Your task to perform on an android device: Open notification settings Image 0: 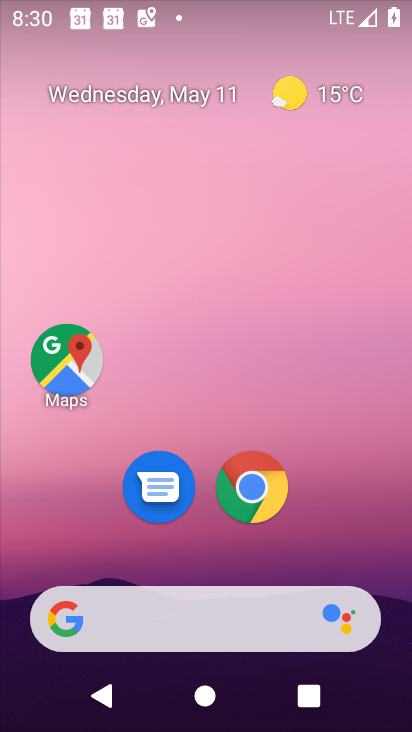
Step 0: drag from (339, 643) to (230, 153)
Your task to perform on an android device: Open notification settings Image 1: 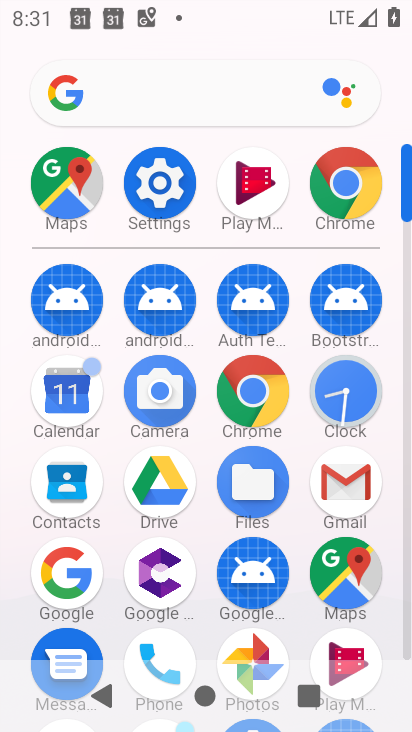
Step 1: click (171, 179)
Your task to perform on an android device: Open notification settings Image 2: 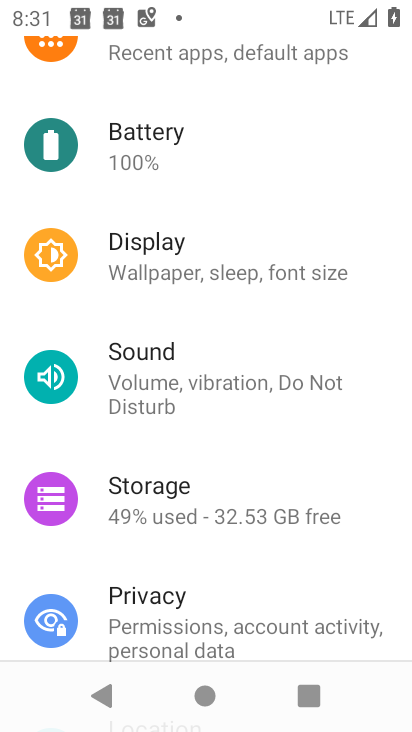
Step 2: drag from (198, 551) to (251, 280)
Your task to perform on an android device: Open notification settings Image 3: 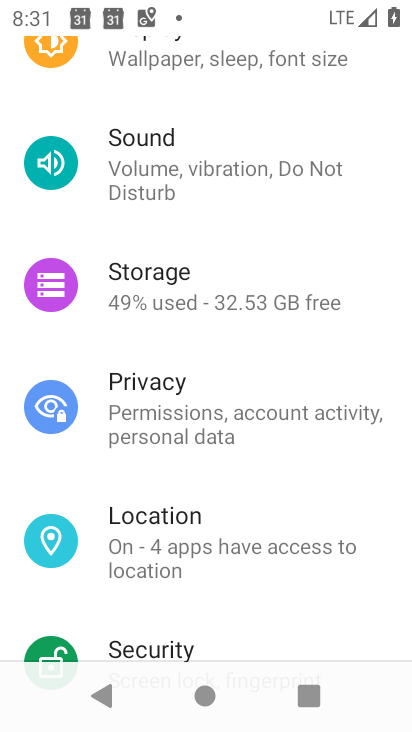
Step 3: drag from (175, 568) to (220, 322)
Your task to perform on an android device: Open notification settings Image 4: 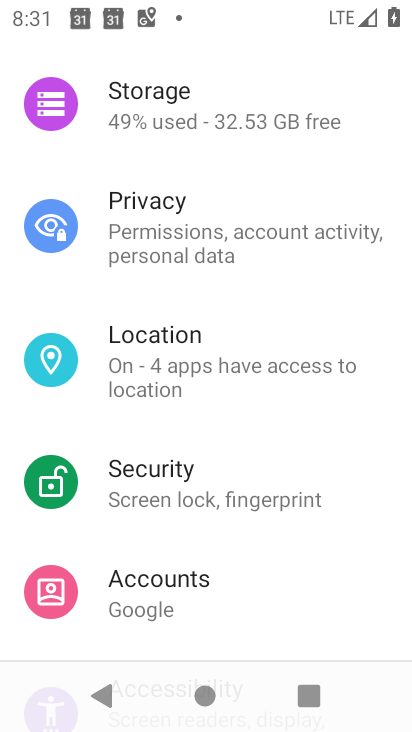
Step 4: drag from (163, 582) to (248, 322)
Your task to perform on an android device: Open notification settings Image 5: 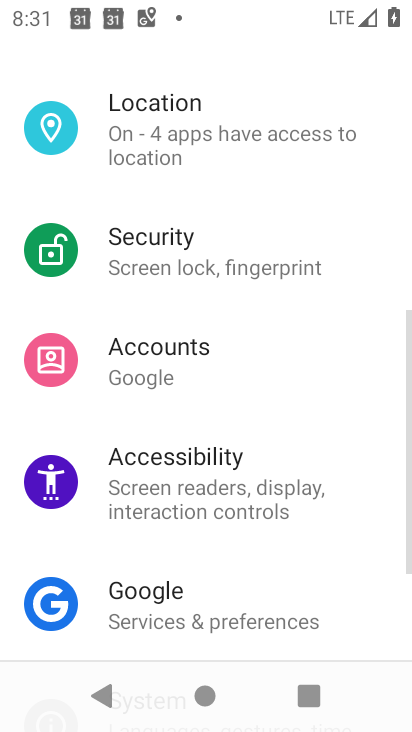
Step 5: drag from (176, 562) to (224, 306)
Your task to perform on an android device: Open notification settings Image 6: 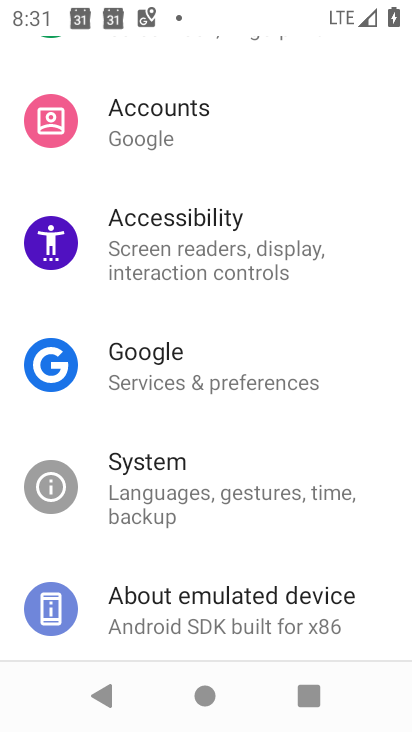
Step 6: drag from (259, 228) to (213, 683)
Your task to perform on an android device: Open notification settings Image 7: 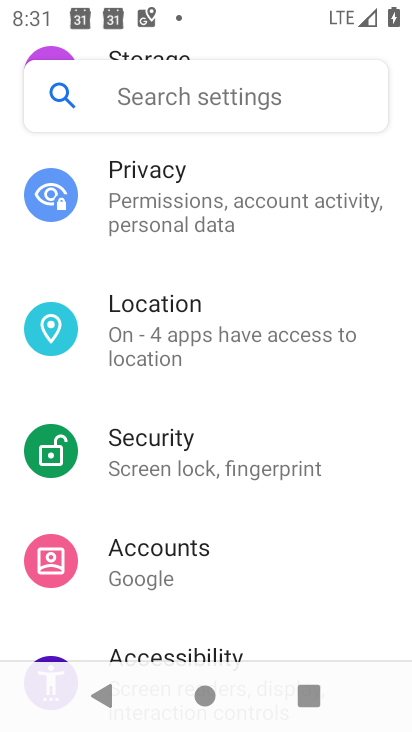
Step 7: drag from (283, 245) to (257, 551)
Your task to perform on an android device: Open notification settings Image 8: 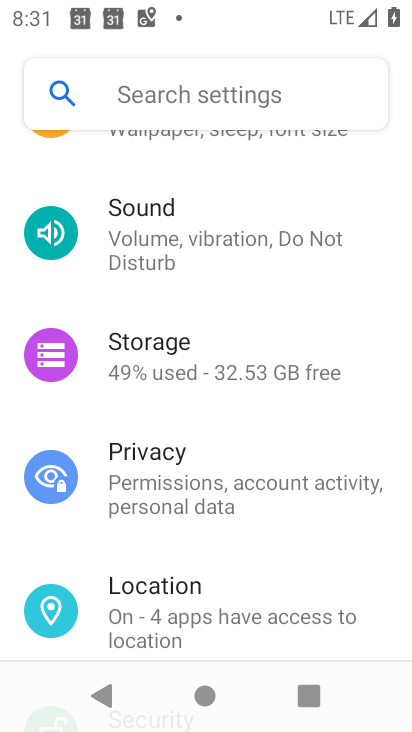
Step 8: click (199, 114)
Your task to perform on an android device: Open notification settings Image 9: 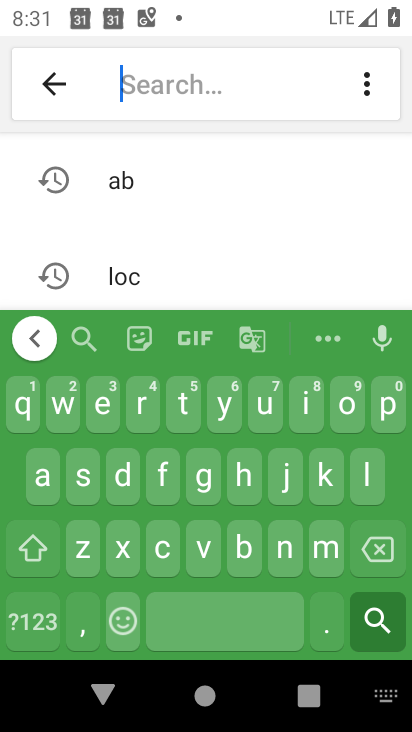
Step 9: click (288, 557)
Your task to perform on an android device: Open notification settings Image 10: 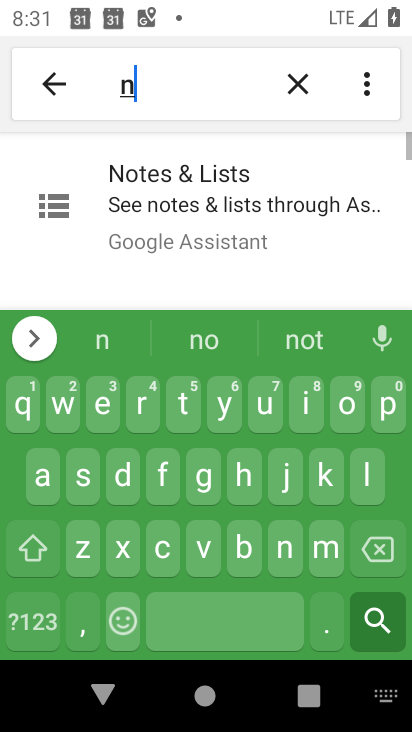
Step 10: click (346, 419)
Your task to perform on an android device: Open notification settings Image 11: 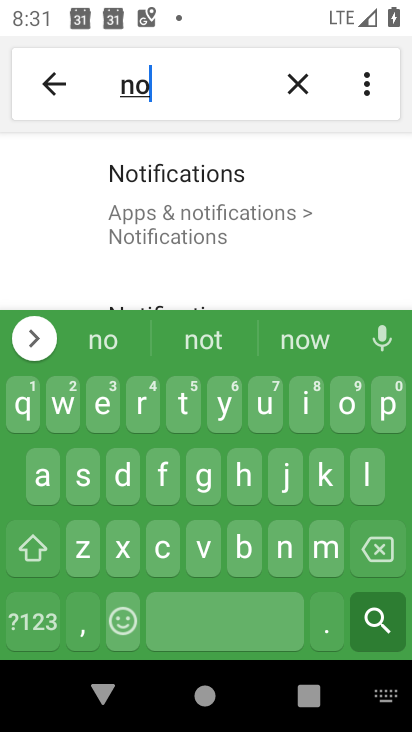
Step 11: click (237, 190)
Your task to perform on an android device: Open notification settings Image 12: 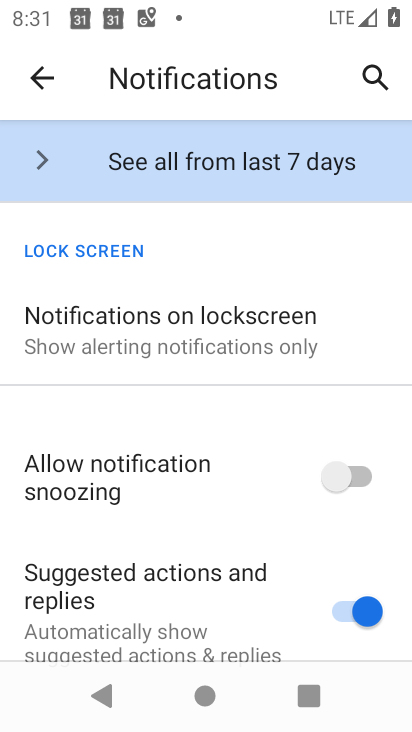
Step 12: click (147, 306)
Your task to perform on an android device: Open notification settings Image 13: 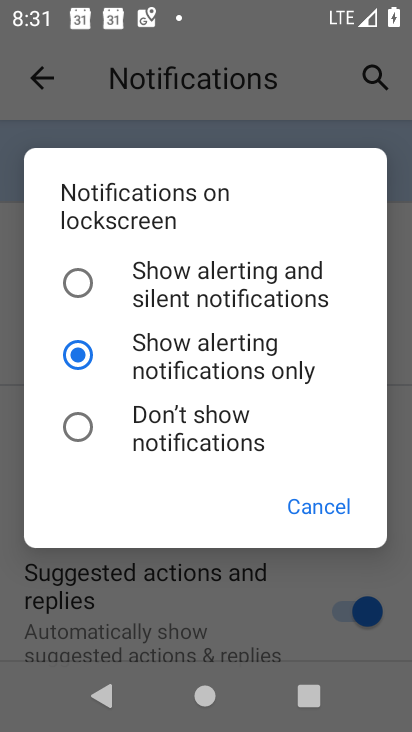
Step 13: task complete